Your task to perform on an android device: Search for sushi restaurants on Maps Image 0: 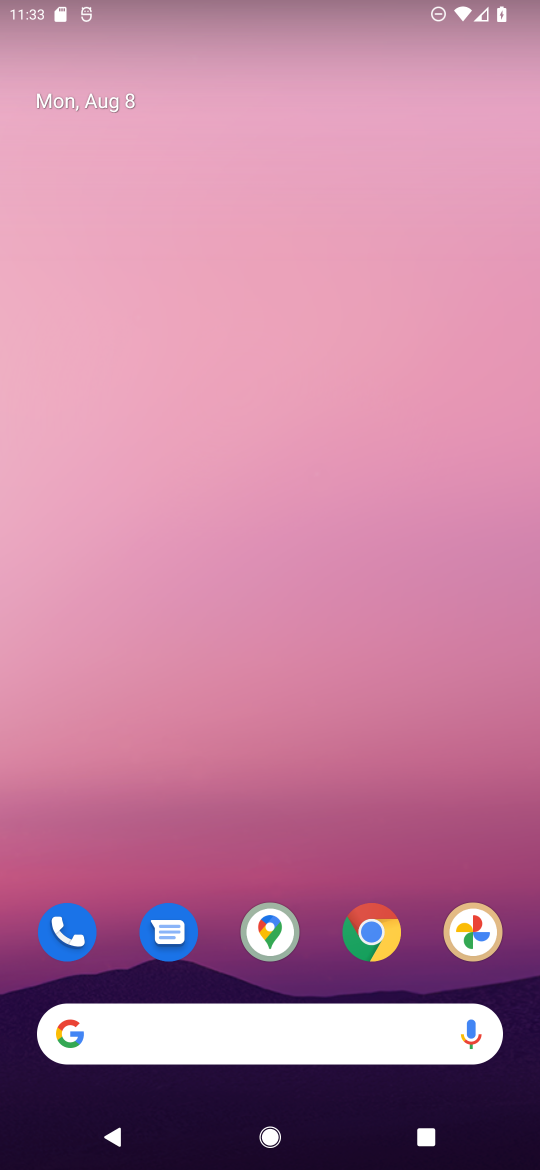
Step 0: click (280, 935)
Your task to perform on an android device: Search for sushi restaurants on Maps Image 1: 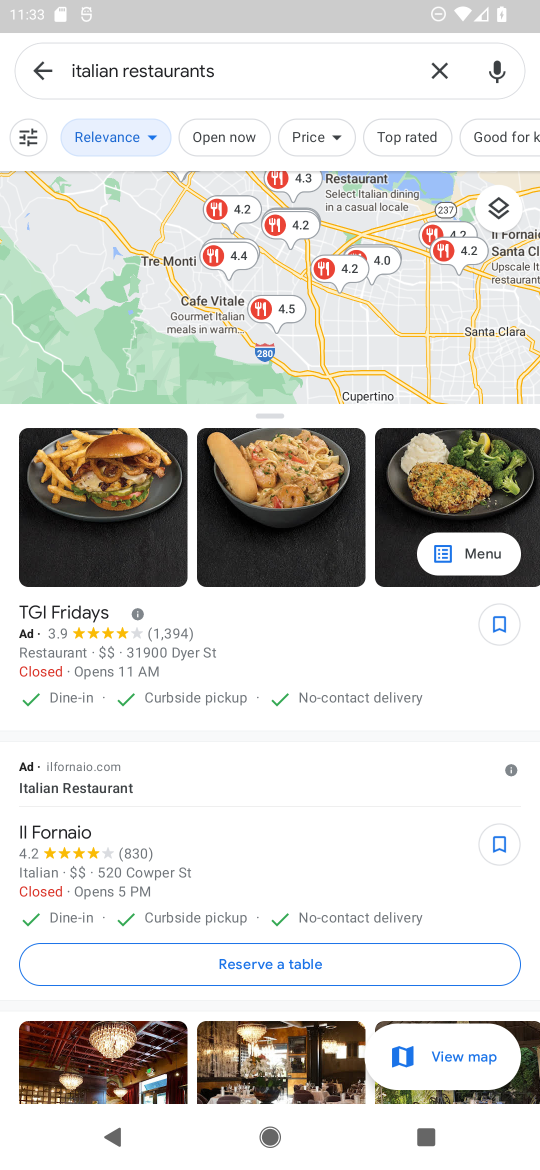
Step 1: click (442, 68)
Your task to perform on an android device: Search for sushi restaurants on Maps Image 2: 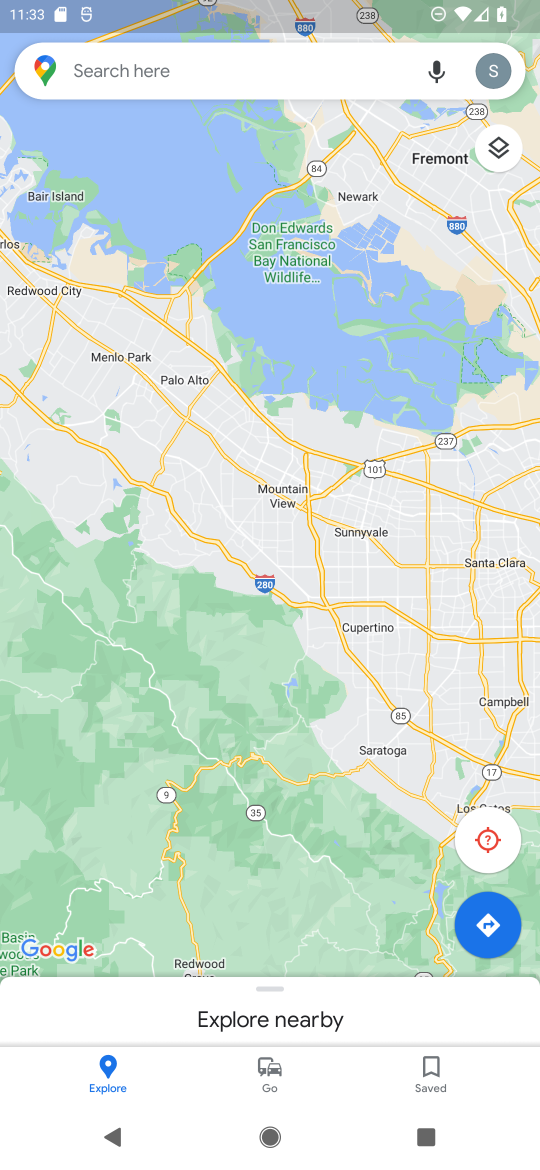
Step 2: click (299, 79)
Your task to perform on an android device: Search for sushi restaurants on Maps Image 3: 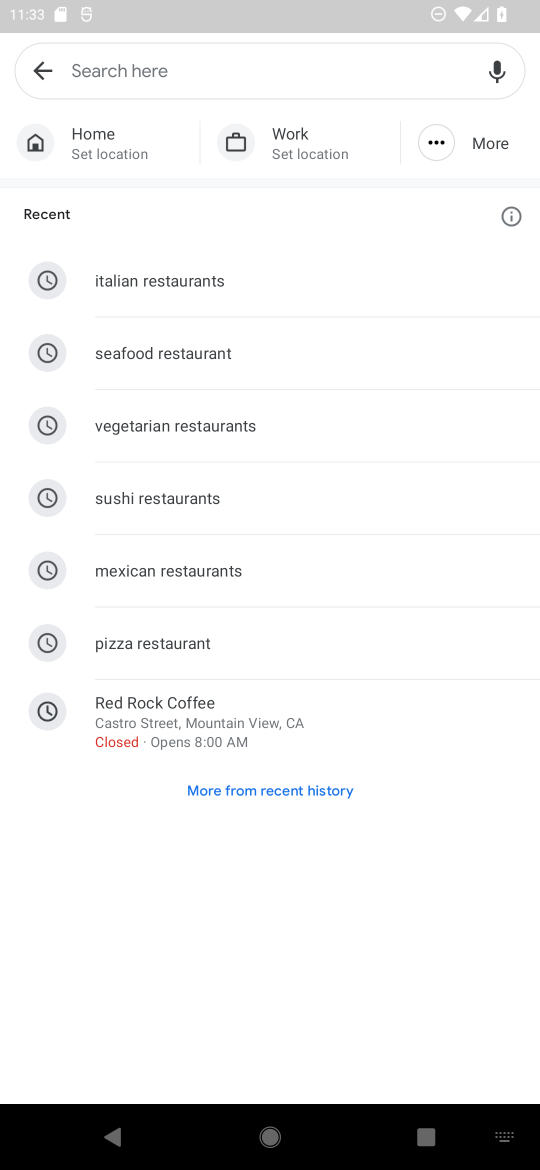
Step 3: click (147, 494)
Your task to perform on an android device: Search for sushi restaurants on Maps Image 4: 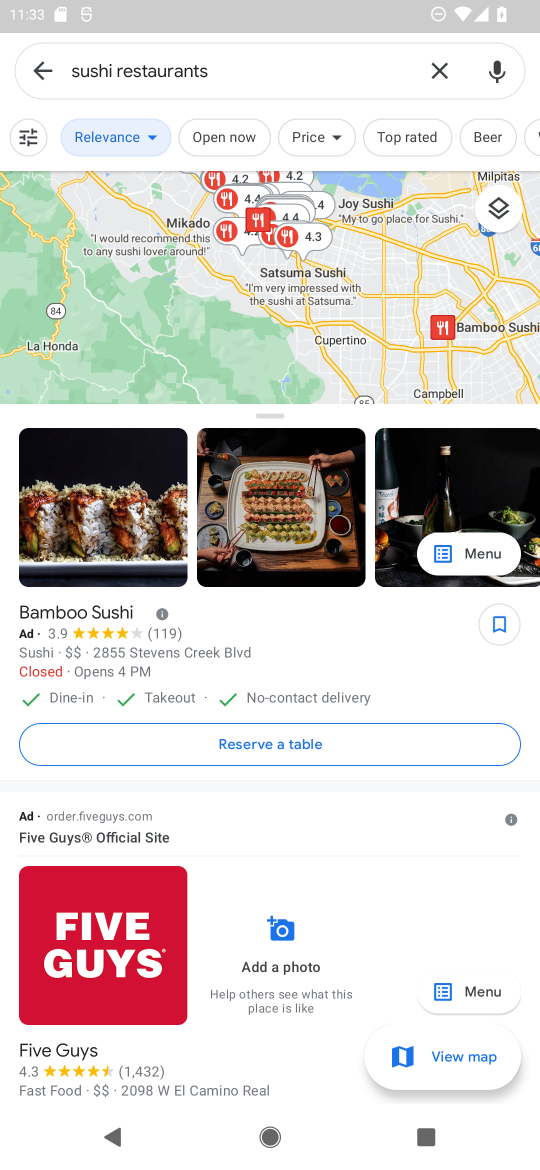
Step 4: task complete